Your task to perform on an android device: Do I have any events today? Image 0: 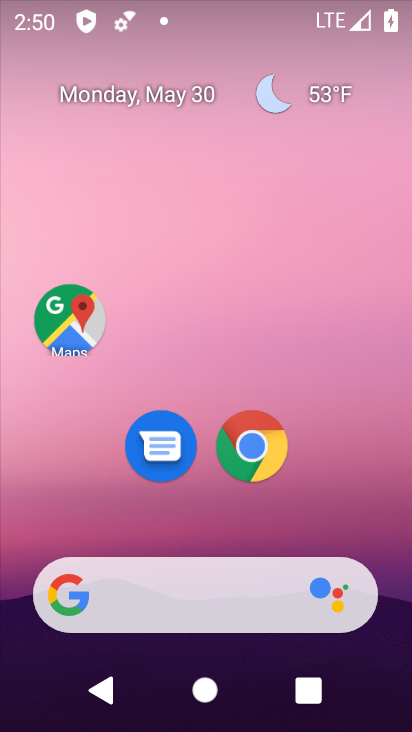
Step 0: drag from (342, 530) to (228, 129)
Your task to perform on an android device: Do I have any events today? Image 1: 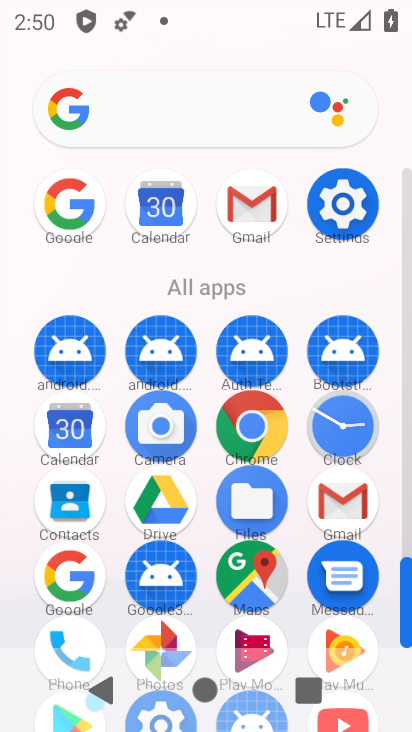
Step 1: click (162, 210)
Your task to perform on an android device: Do I have any events today? Image 2: 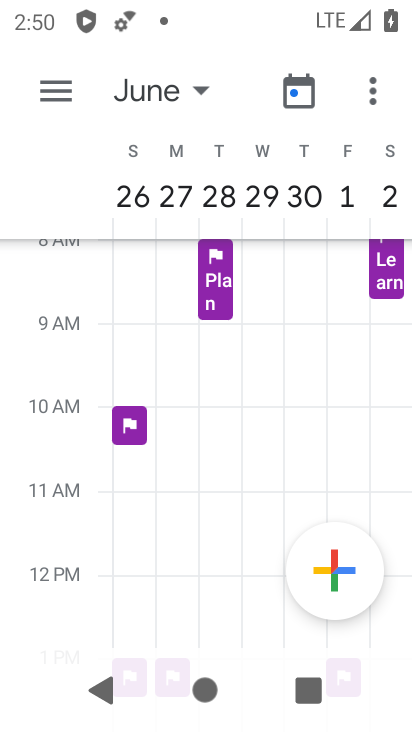
Step 2: click (301, 94)
Your task to perform on an android device: Do I have any events today? Image 3: 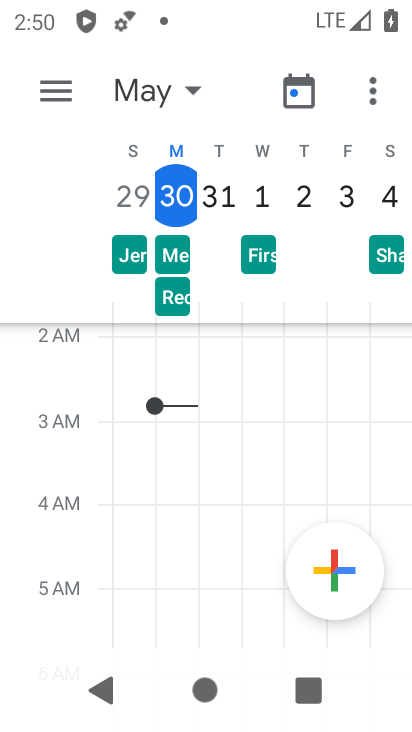
Step 3: click (190, 85)
Your task to perform on an android device: Do I have any events today? Image 4: 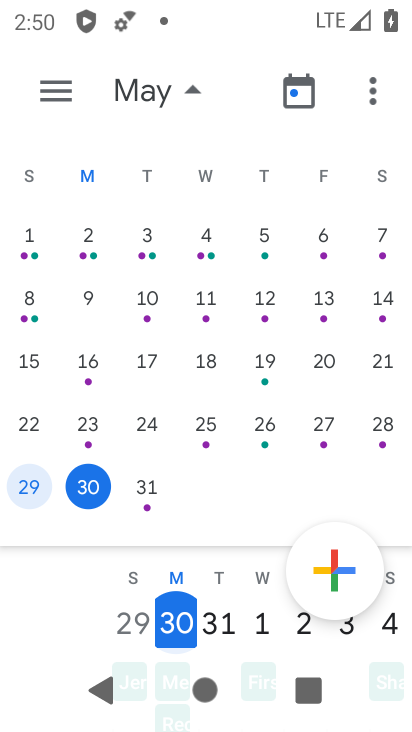
Step 4: click (301, 95)
Your task to perform on an android device: Do I have any events today? Image 5: 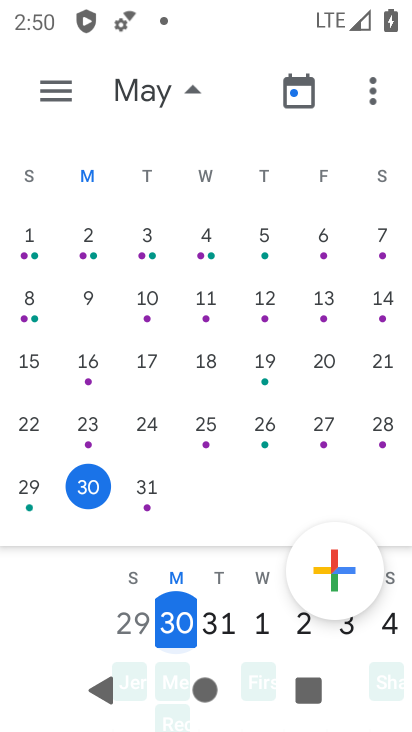
Step 5: click (39, 112)
Your task to perform on an android device: Do I have any events today? Image 6: 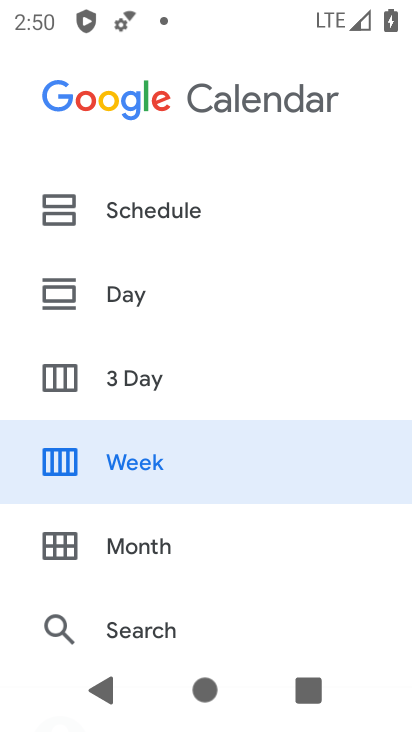
Step 6: click (169, 198)
Your task to perform on an android device: Do I have any events today? Image 7: 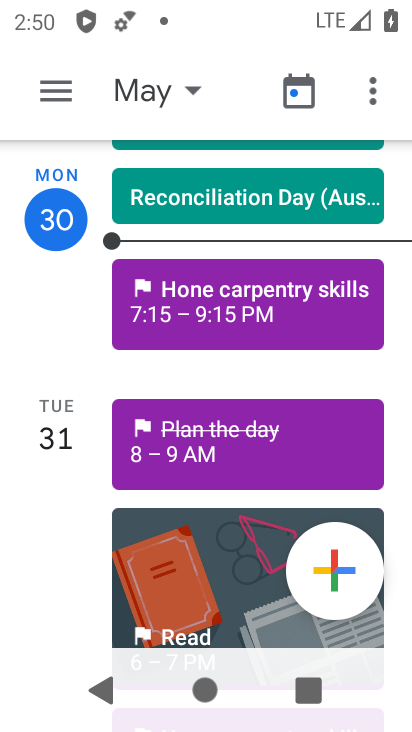
Step 7: click (169, 291)
Your task to perform on an android device: Do I have any events today? Image 8: 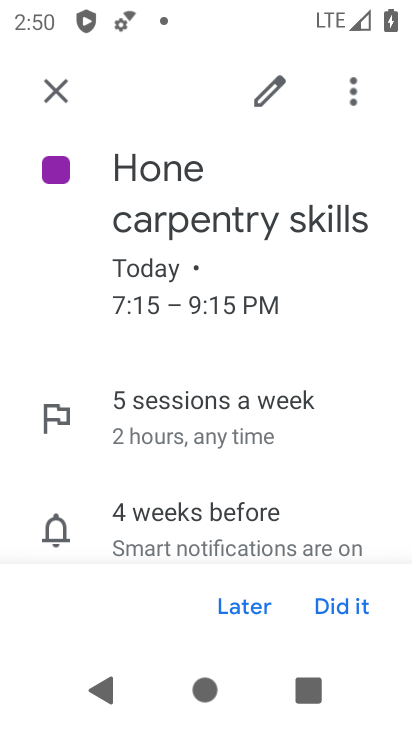
Step 8: task complete